Your task to perform on an android device: turn notification dots on Image 0: 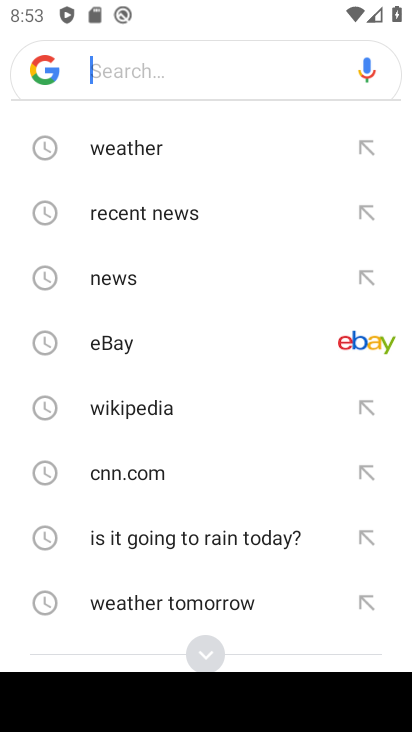
Step 0: press home button
Your task to perform on an android device: turn notification dots on Image 1: 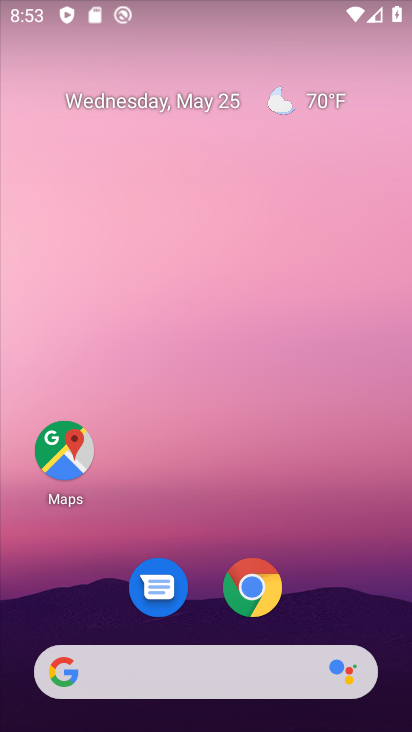
Step 1: drag from (208, 583) to (256, 17)
Your task to perform on an android device: turn notification dots on Image 2: 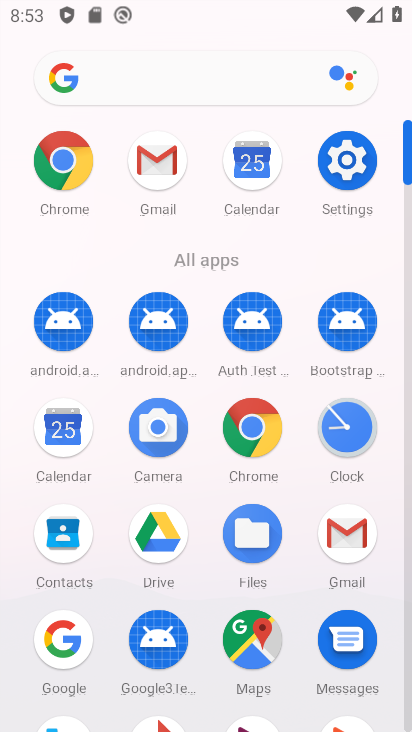
Step 2: click (346, 201)
Your task to perform on an android device: turn notification dots on Image 3: 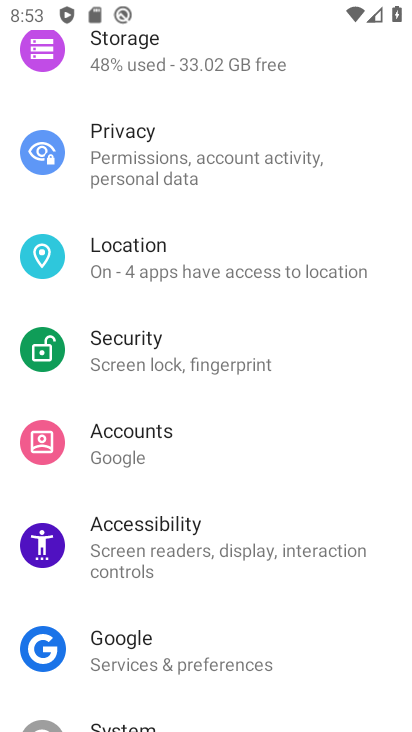
Step 3: drag from (322, 215) to (308, 395)
Your task to perform on an android device: turn notification dots on Image 4: 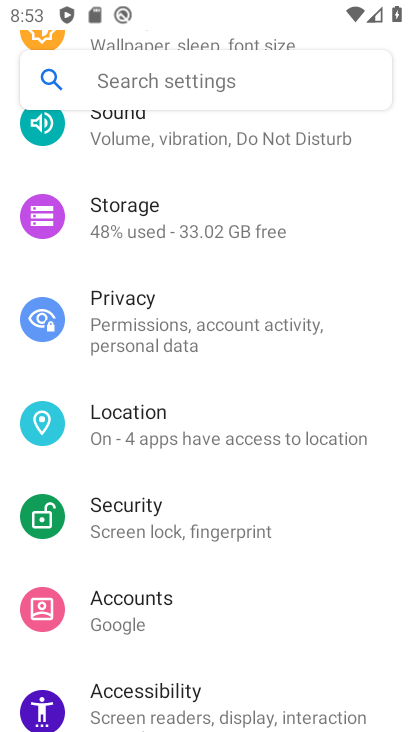
Step 4: drag from (200, 359) to (206, 631)
Your task to perform on an android device: turn notification dots on Image 5: 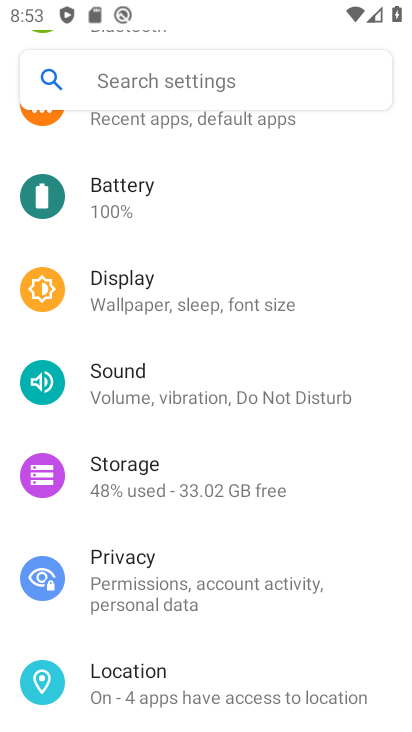
Step 5: drag from (199, 279) to (187, 454)
Your task to perform on an android device: turn notification dots on Image 6: 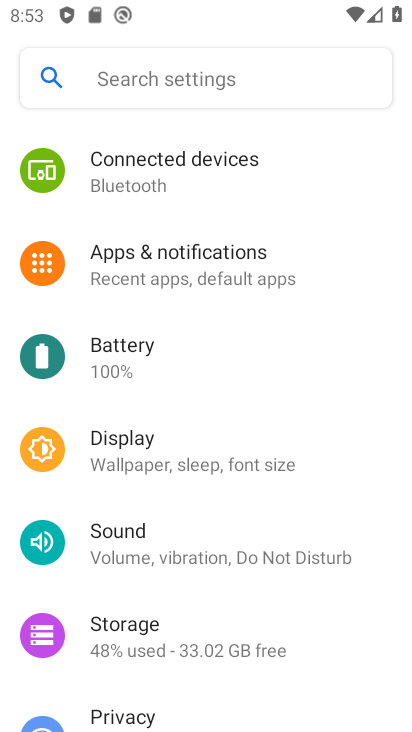
Step 6: click (180, 245)
Your task to perform on an android device: turn notification dots on Image 7: 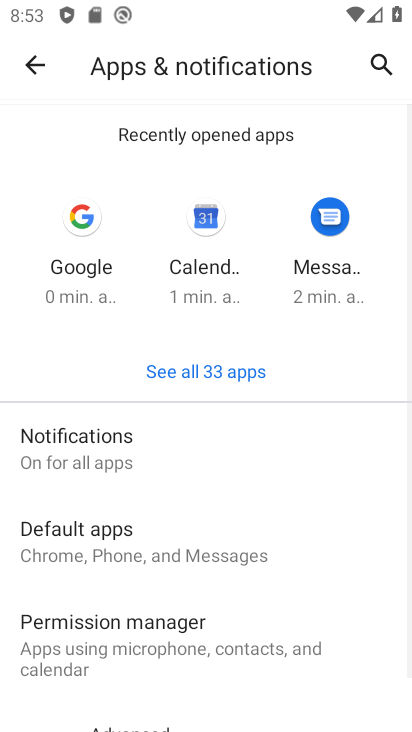
Step 7: click (143, 464)
Your task to perform on an android device: turn notification dots on Image 8: 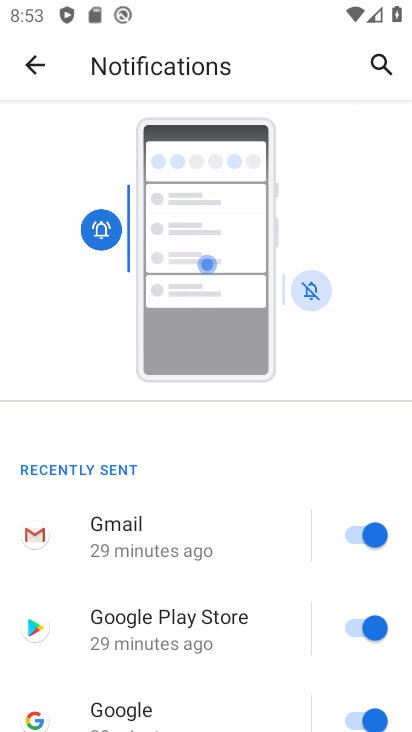
Step 8: drag from (212, 574) to (250, 146)
Your task to perform on an android device: turn notification dots on Image 9: 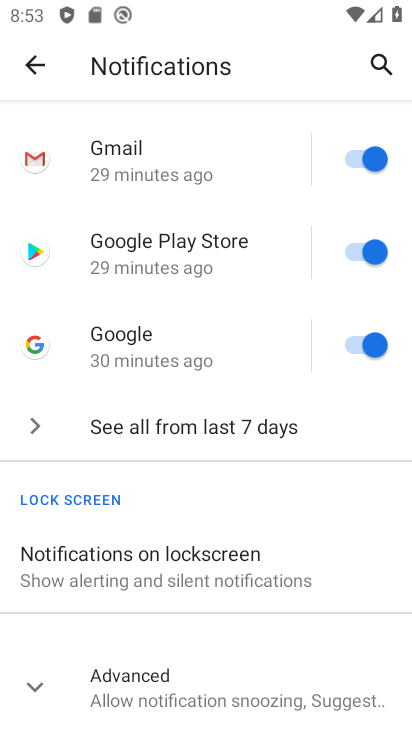
Step 9: click (204, 692)
Your task to perform on an android device: turn notification dots on Image 10: 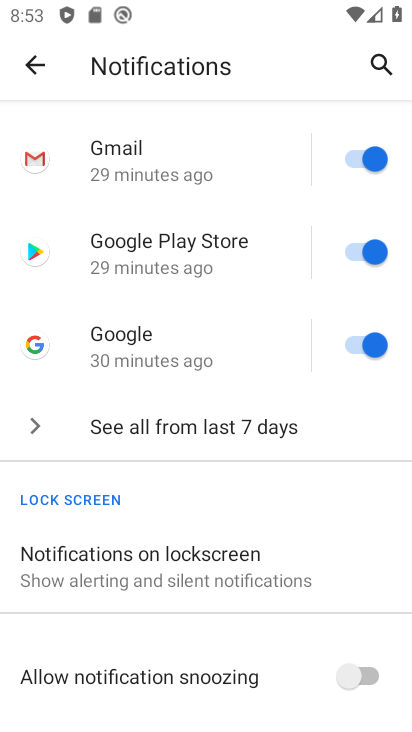
Step 10: task complete